Your task to perform on an android device: Open calendar and show me the third week of next month Image 0: 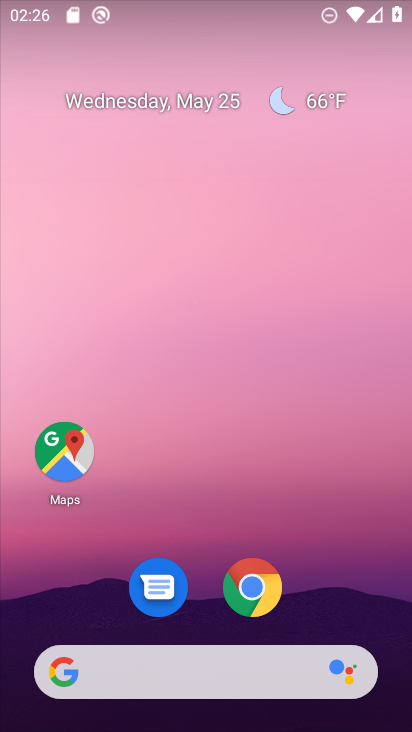
Step 0: drag from (367, 601) to (364, 187)
Your task to perform on an android device: Open calendar and show me the third week of next month Image 1: 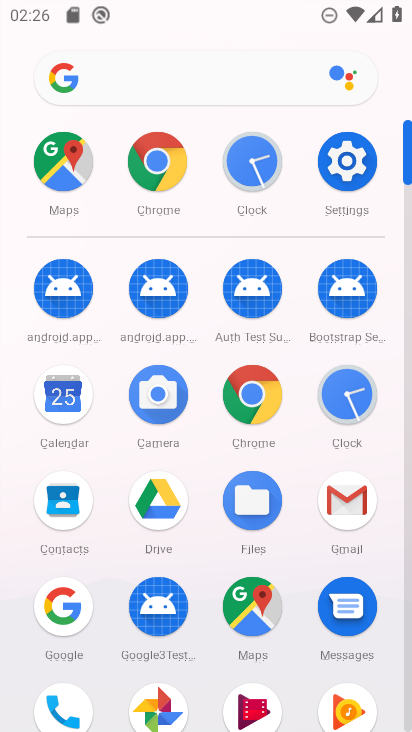
Step 1: click (76, 404)
Your task to perform on an android device: Open calendar and show me the third week of next month Image 2: 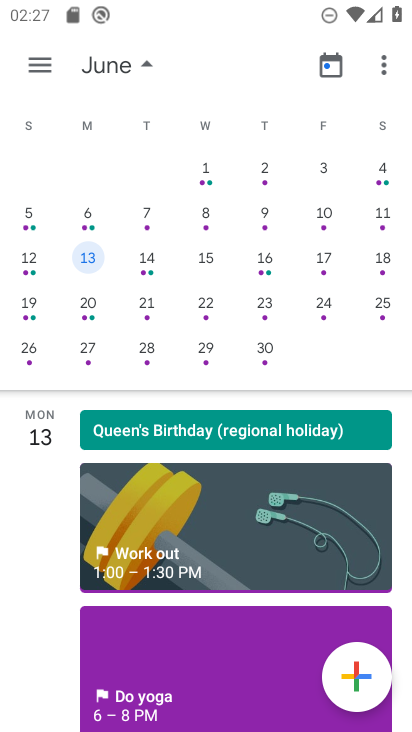
Step 2: task complete